Your task to perform on an android device: What's the weather going to be this weekend? Image 0: 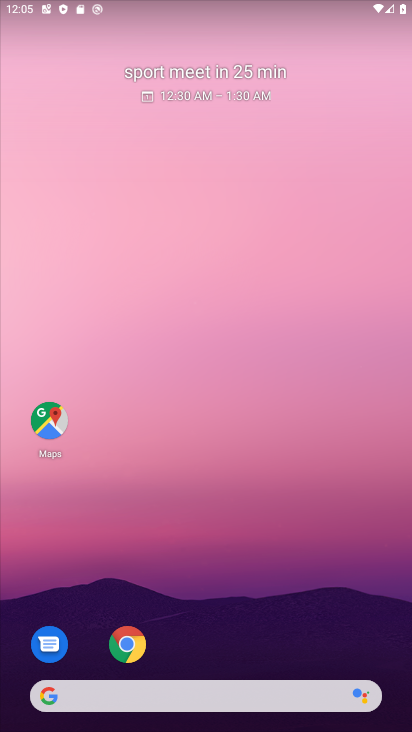
Step 0: drag from (253, 655) to (291, 154)
Your task to perform on an android device: What's the weather going to be this weekend? Image 1: 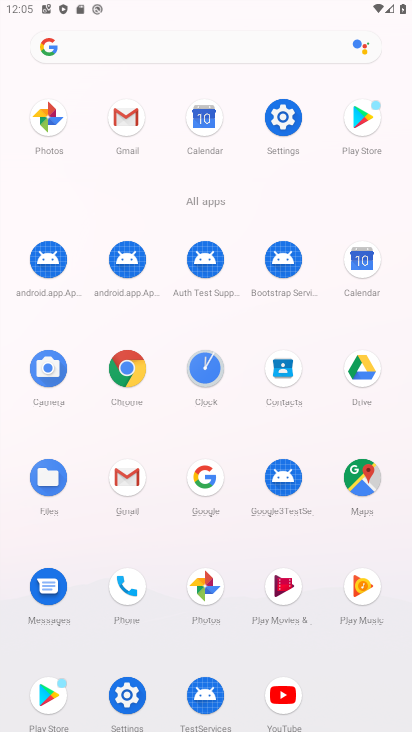
Step 1: click (136, 54)
Your task to perform on an android device: What's the weather going to be this weekend? Image 2: 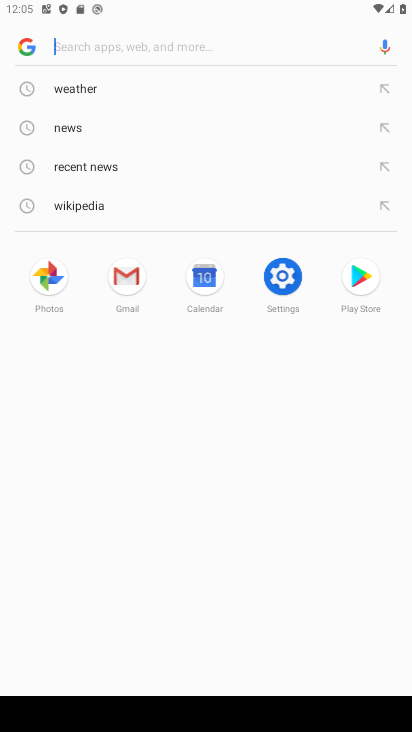
Step 2: click (69, 80)
Your task to perform on an android device: What's the weather going to be this weekend? Image 3: 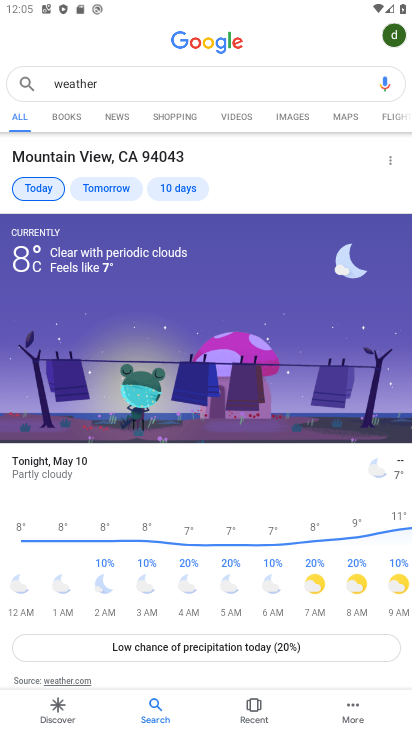
Step 3: click (180, 187)
Your task to perform on an android device: What's the weather going to be this weekend? Image 4: 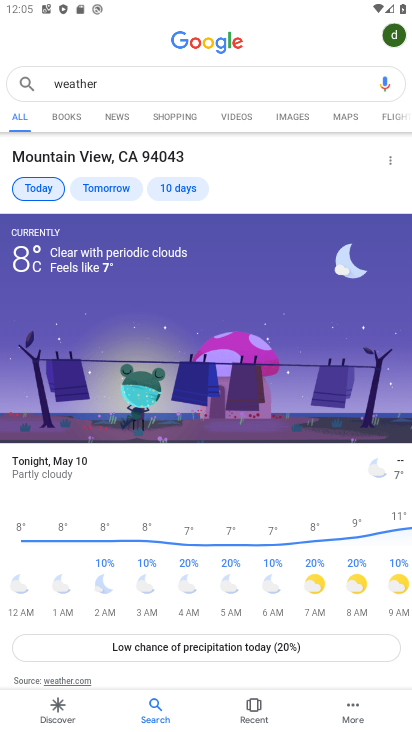
Step 4: click (176, 182)
Your task to perform on an android device: What's the weather going to be this weekend? Image 5: 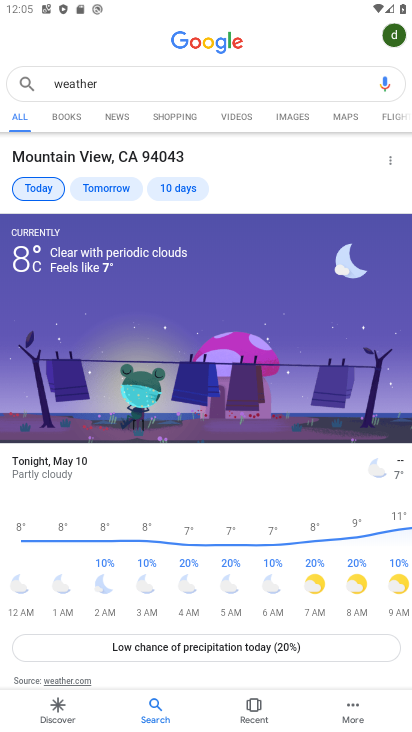
Step 5: click (174, 190)
Your task to perform on an android device: What's the weather going to be this weekend? Image 6: 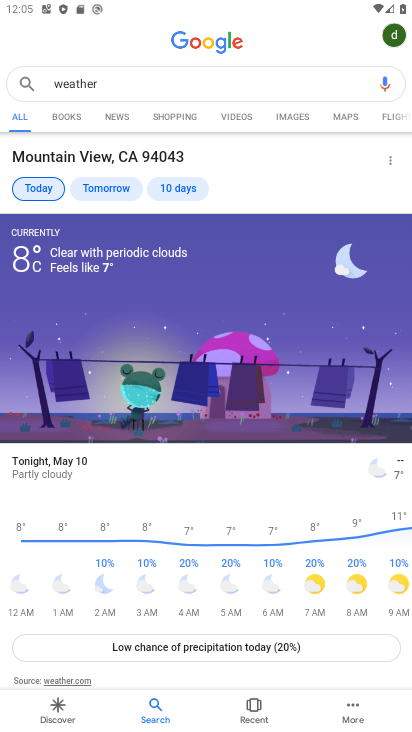
Step 6: click (175, 191)
Your task to perform on an android device: What's the weather going to be this weekend? Image 7: 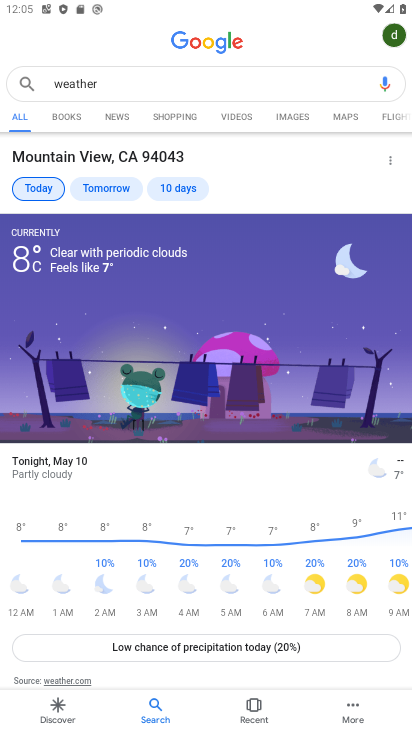
Step 7: task complete